Your task to perform on an android device: Open maps Image 0: 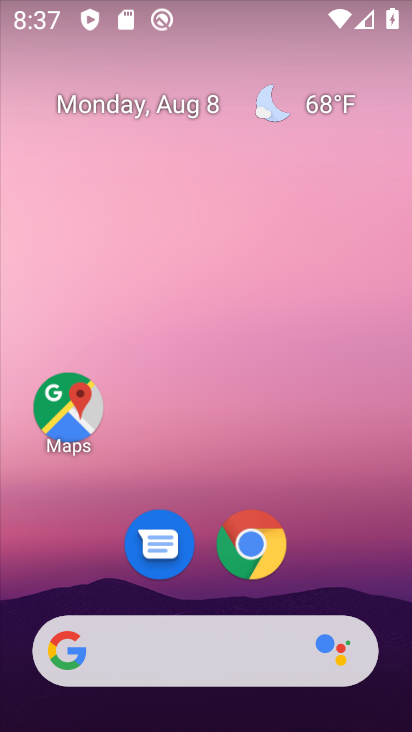
Step 0: click (67, 409)
Your task to perform on an android device: Open maps Image 1: 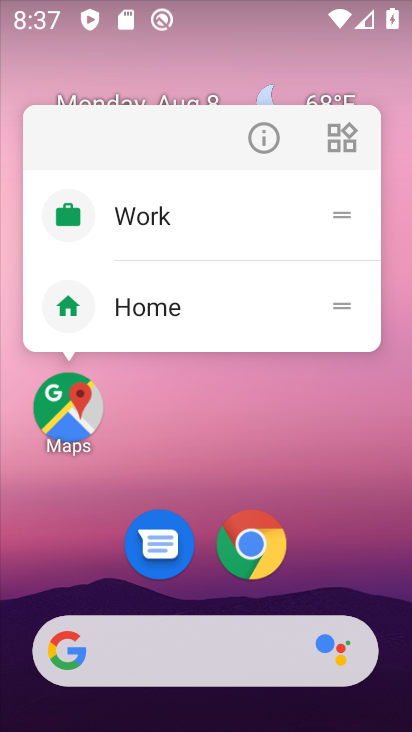
Step 1: click (75, 395)
Your task to perform on an android device: Open maps Image 2: 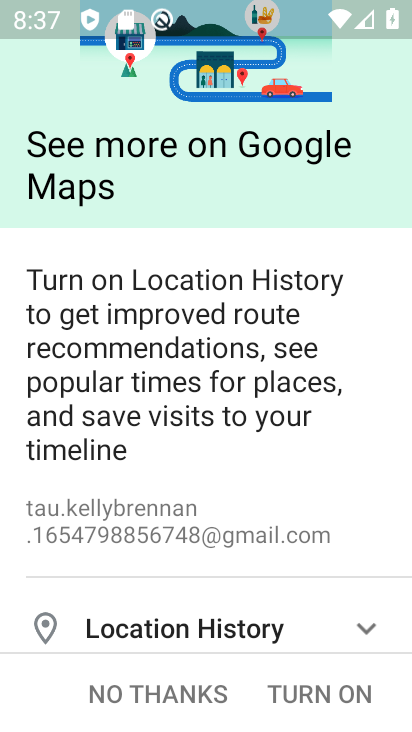
Step 2: click (326, 687)
Your task to perform on an android device: Open maps Image 3: 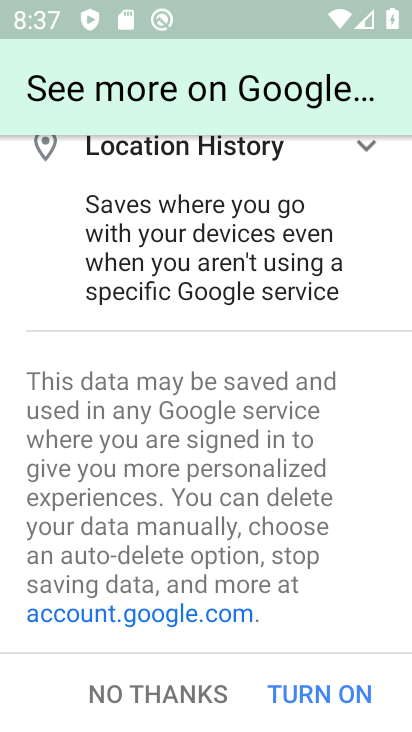
Step 3: drag from (235, 524) to (246, 152)
Your task to perform on an android device: Open maps Image 4: 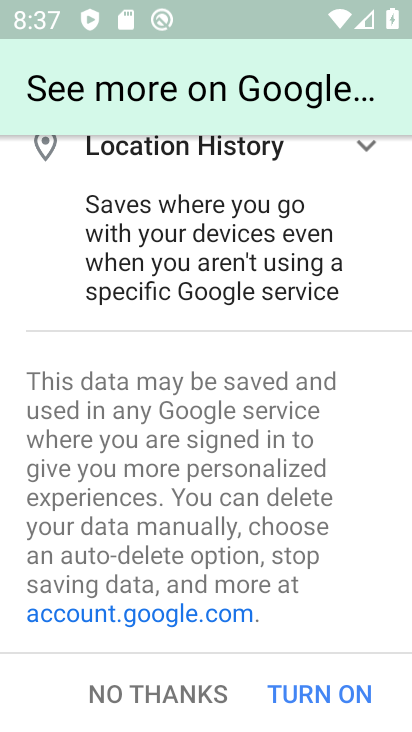
Step 4: click (319, 697)
Your task to perform on an android device: Open maps Image 5: 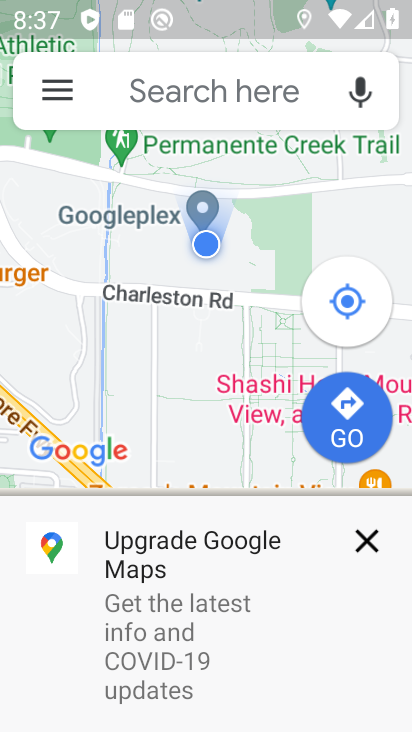
Step 5: click (367, 534)
Your task to perform on an android device: Open maps Image 6: 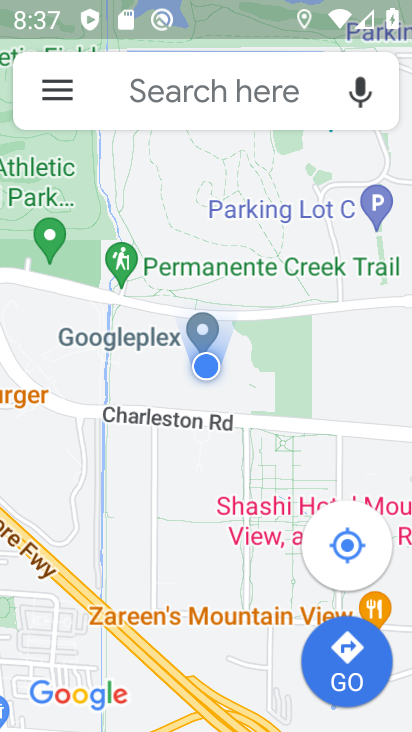
Step 6: task complete